Your task to perform on an android device: Show me the alarms in the clock app Image 0: 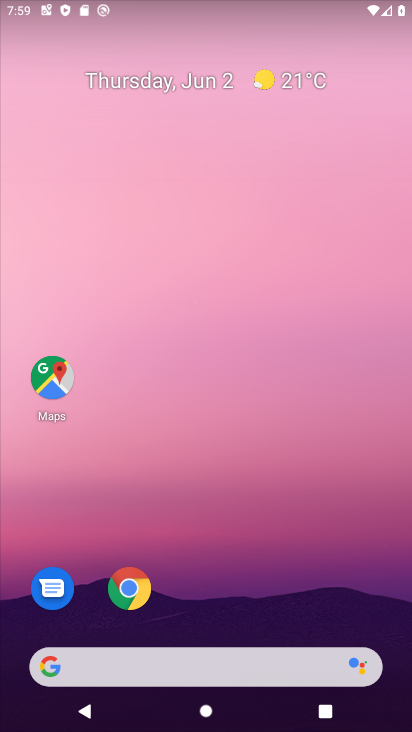
Step 0: drag from (179, 402) to (186, 194)
Your task to perform on an android device: Show me the alarms in the clock app Image 1: 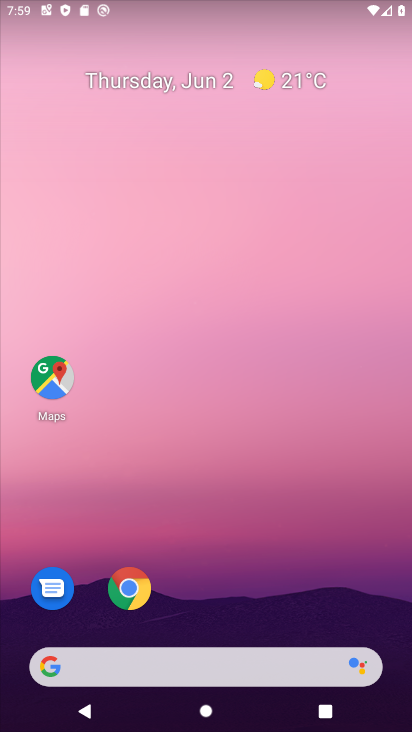
Step 1: drag from (191, 525) to (216, 29)
Your task to perform on an android device: Show me the alarms in the clock app Image 2: 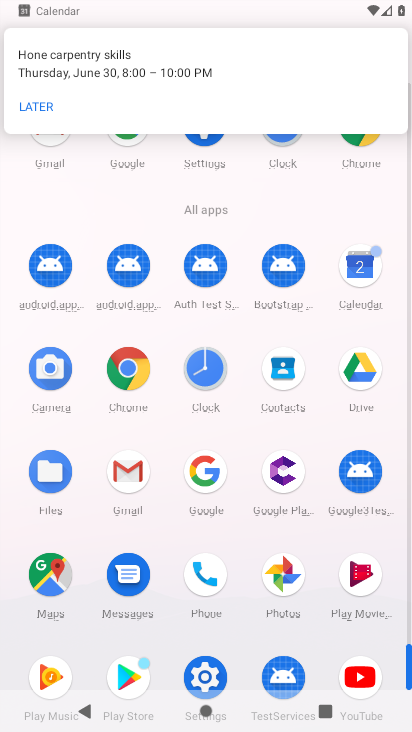
Step 2: click (205, 381)
Your task to perform on an android device: Show me the alarms in the clock app Image 3: 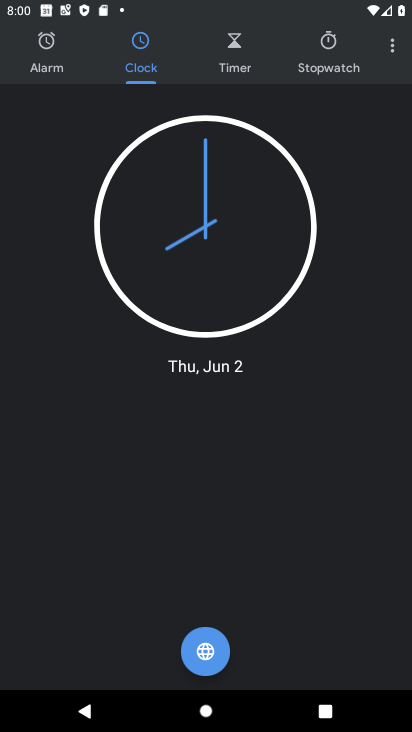
Step 3: click (54, 57)
Your task to perform on an android device: Show me the alarms in the clock app Image 4: 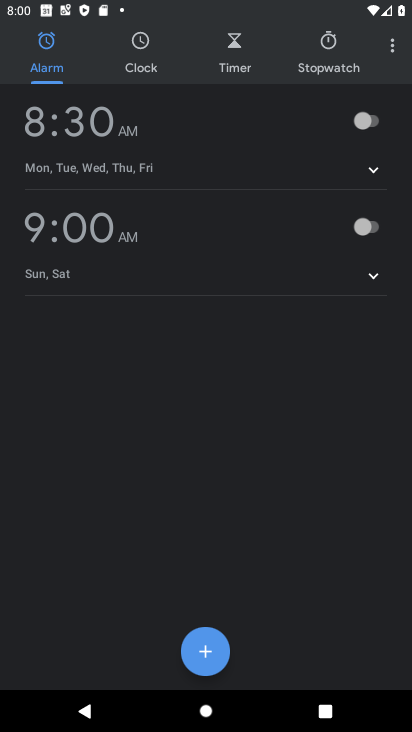
Step 4: click (73, 74)
Your task to perform on an android device: Show me the alarms in the clock app Image 5: 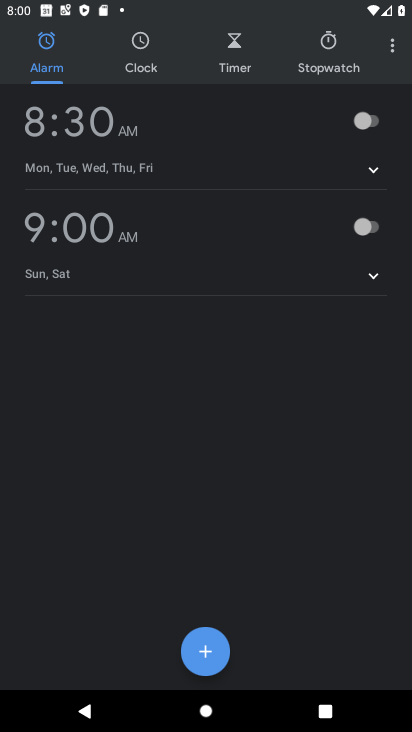
Step 5: task complete